Your task to perform on an android device: show emergency info Image 0: 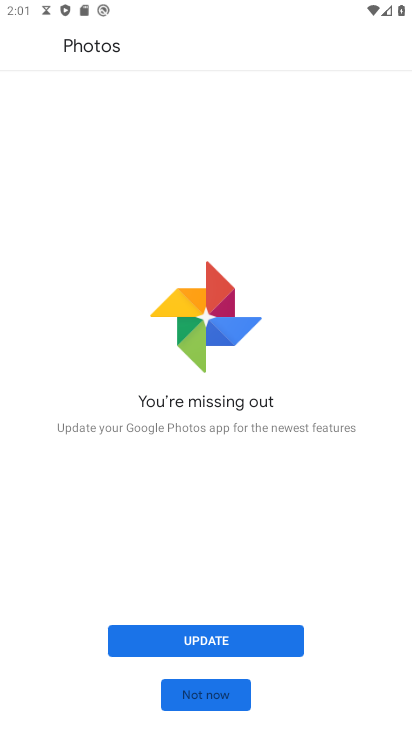
Step 0: press home button
Your task to perform on an android device: show emergency info Image 1: 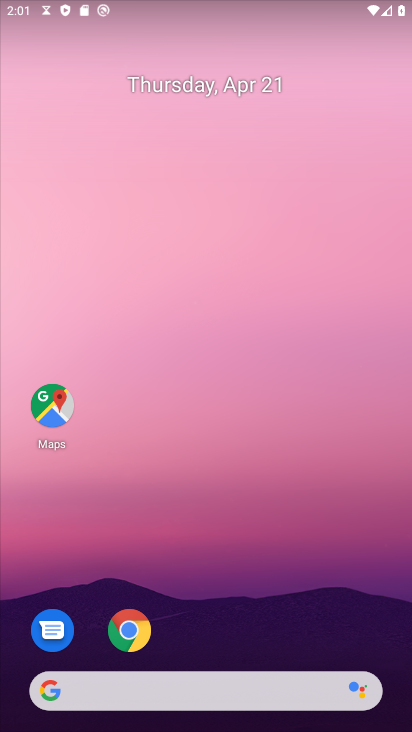
Step 1: drag from (309, 662) to (315, 15)
Your task to perform on an android device: show emergency info Image 2: 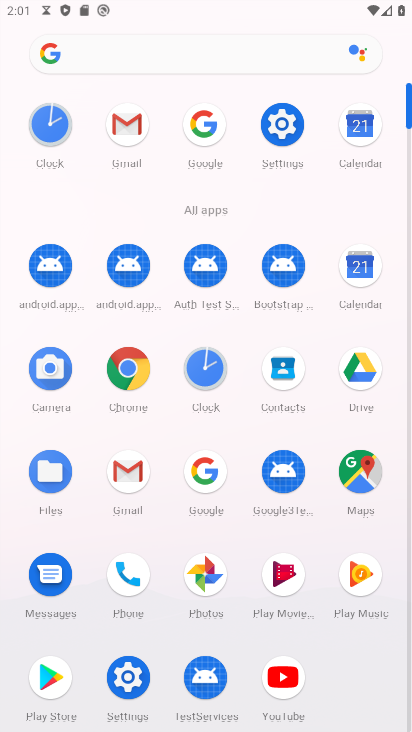
Step 2: click (278, 128)
Your task to perform on an android device: show emergency info Image 3: 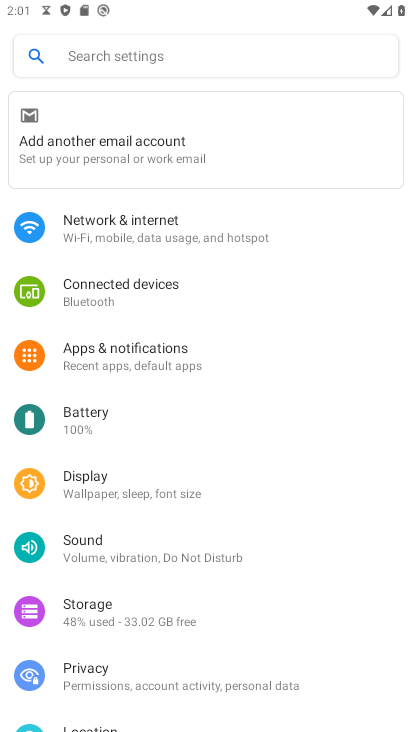
Step 3: drag from (291, 668) to (283, 45)
Your task to perform on an android device: show emergency info Image 4: 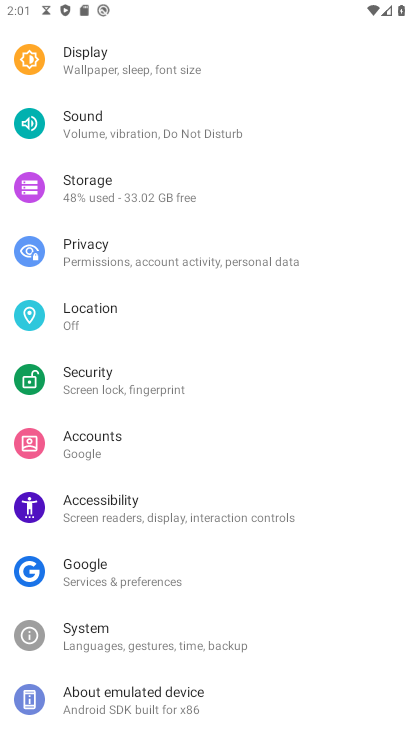
Step 4: drag from (250, 634) to (225, 224)
Your task to perform on an android device: show emergency info Image 5: 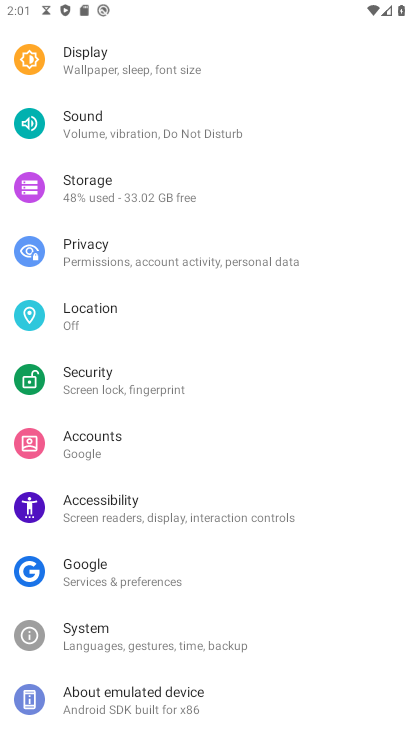
Step 5: click (154, 703)
Your task to perform on an android device: show emergency info Image 6: 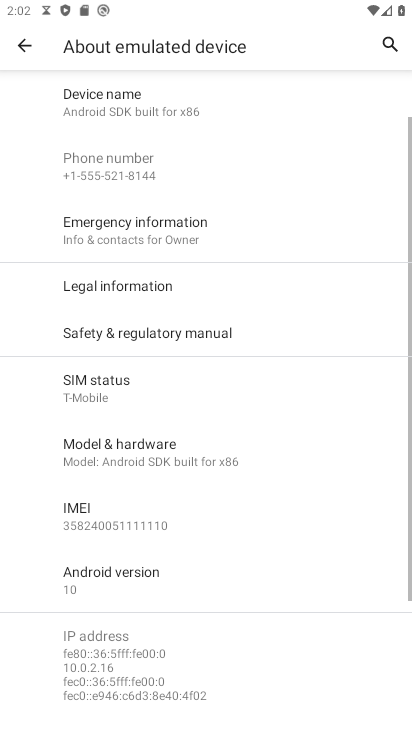
Step 6: click (86, 244)
Your task to perform on an android device: show emergency info Image 7: 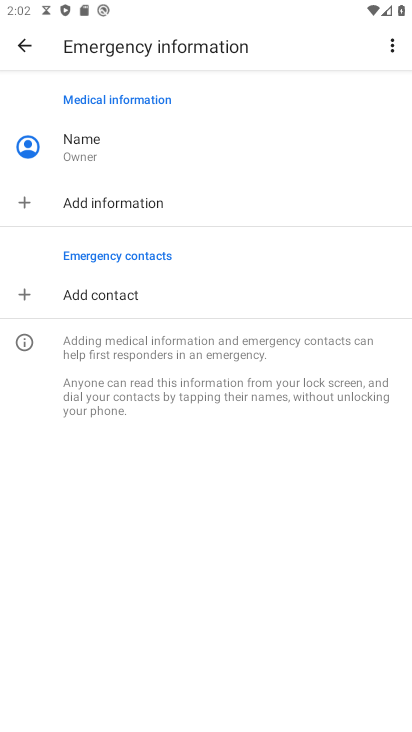
Step 7: task complete